Your task to perform on an android device: Is it going to rain this weekend? Image 0: 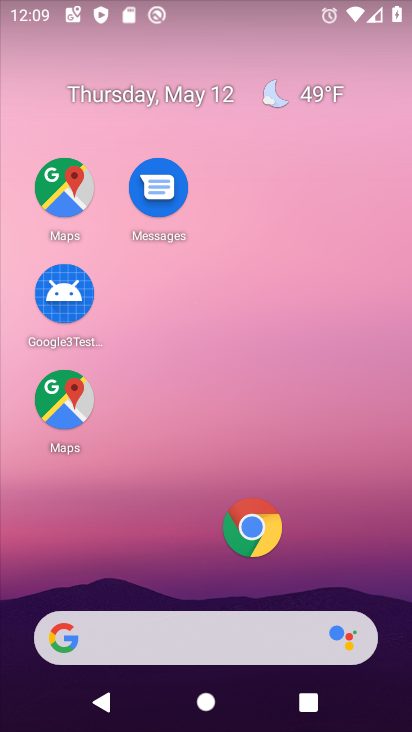
Step 0: click (210, 619)
Your task to perform on an android device: Is it going to rain this weekend? Image 1: 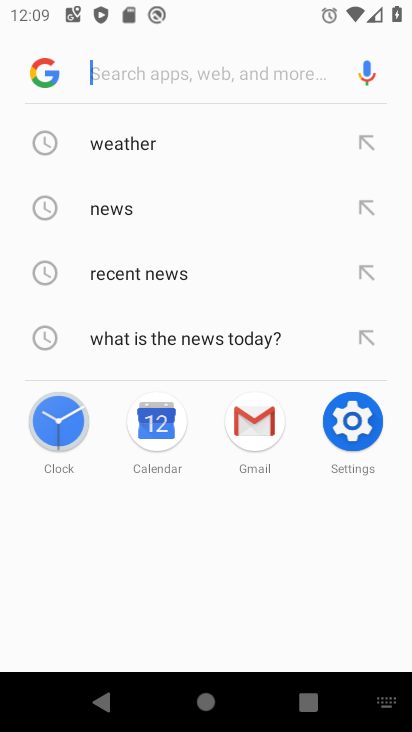
Step 1: click (66, 141)
Your task to perform on an android device: Is it going to rain this weekend? Image 2: 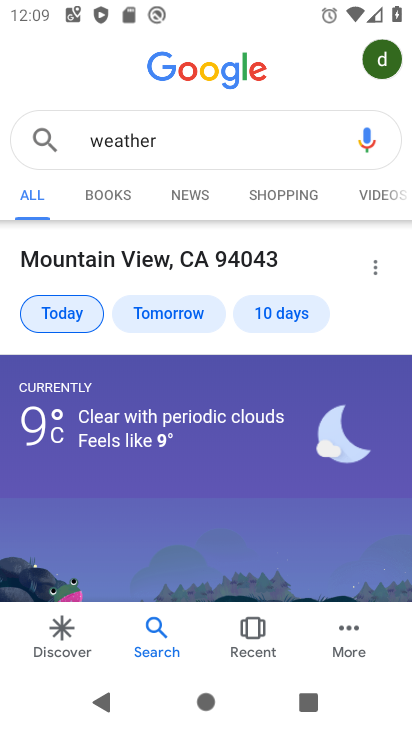
Step 2: click (318, 305)
Your task to perform on an android device: Is it going to rain this weekend? Image 3: 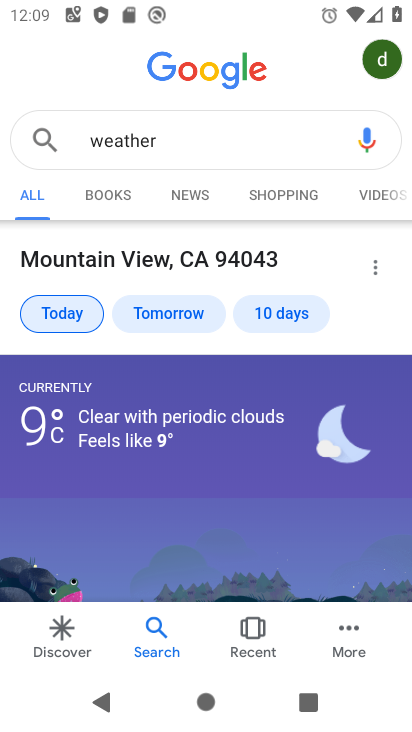
Step 3: click (304, 311)
Your task to perform on an android device: Is it going to rain this weekend? Image 4: 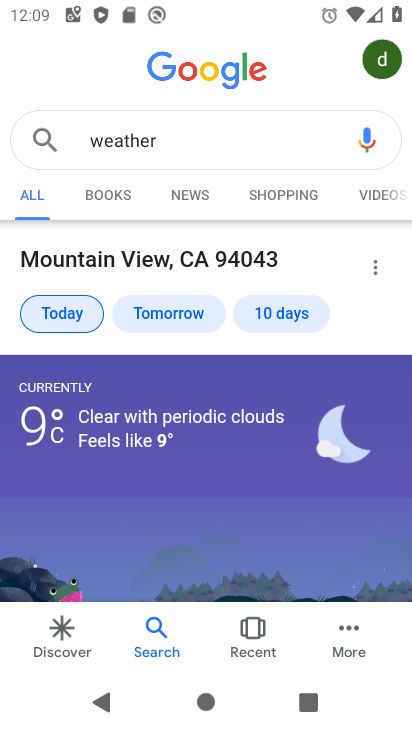
Step 4: task complete